Your task to perform on an android device: Open Maps and search for coffee Image 0: 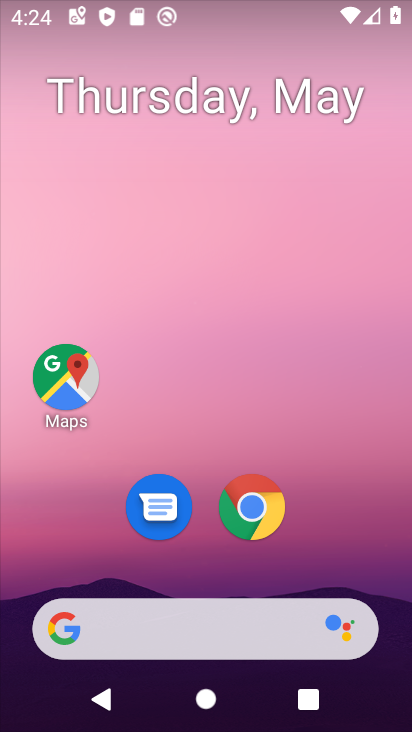
Step 0: click (71, 392)
Your task to perform on an android device: Open Maps and search for coffee Image 1: 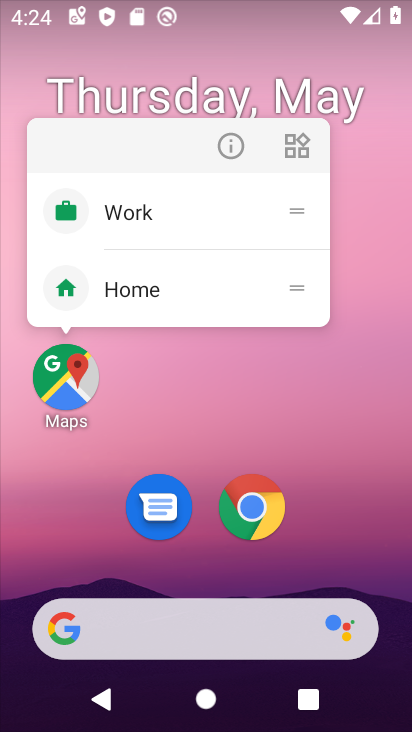
Step 1: click (71, 391)
Your task to perform on an android device: Open Maps and search for coffee Image 2: 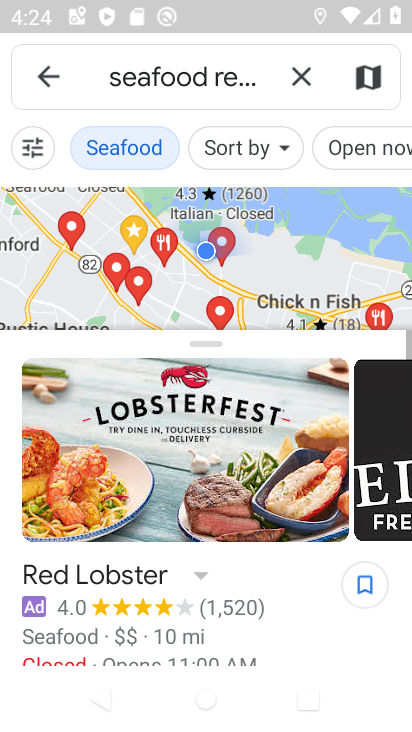
Step 2: click (295, 75)
Your task to perform on an android device: Open Maps and search for coffee Image 3: 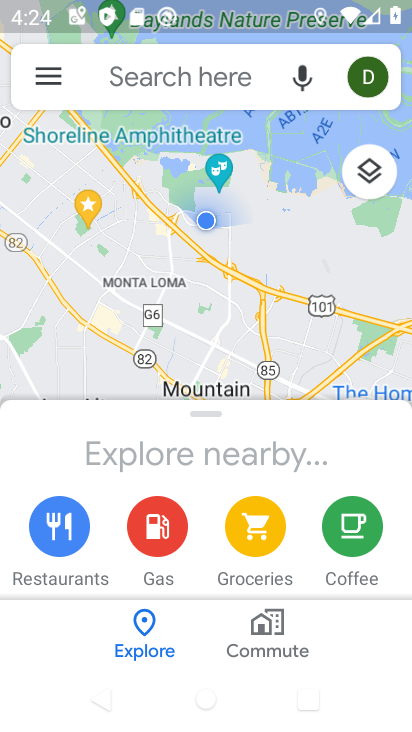
Step 3: click (223, 79)
Your task to perform on an android device: Open Maps and search for coffee Image 4: 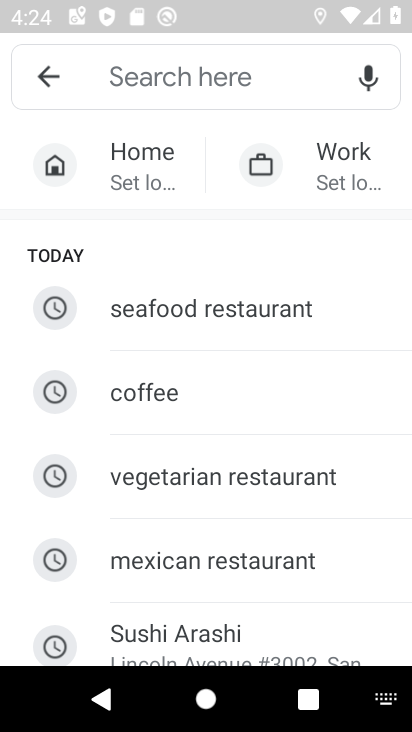
Step 4: type "coffee"
Your task to perform on an android device: Open Maps and search for coffee Image 5: 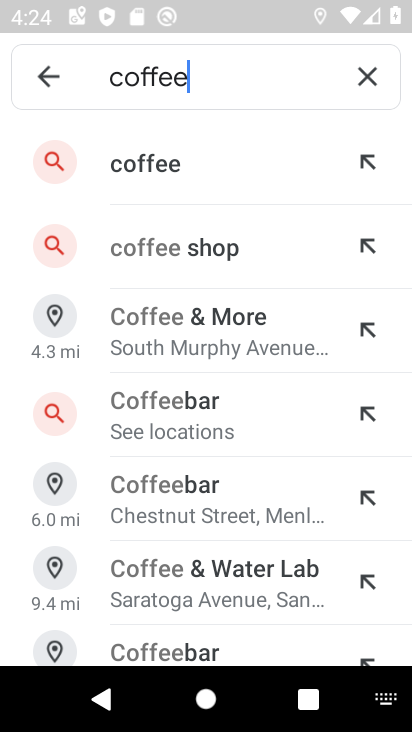
Step 5: click (99, 162)
Your task to perform on an android device: Open Maps and search for coffee Image 6: 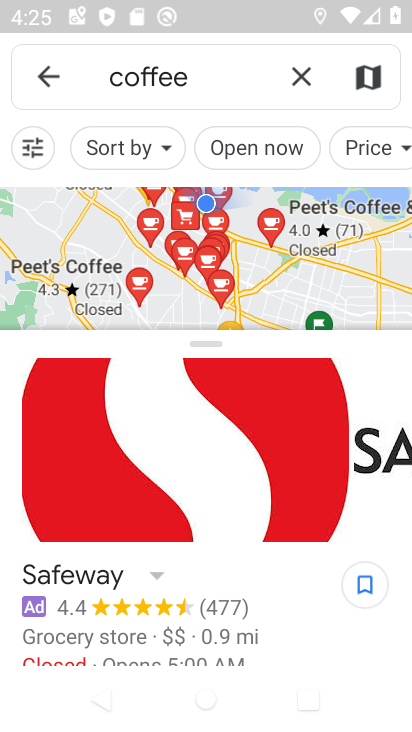
Step 6: task complete